Your task to perform on an android device: Open Google Image 0: 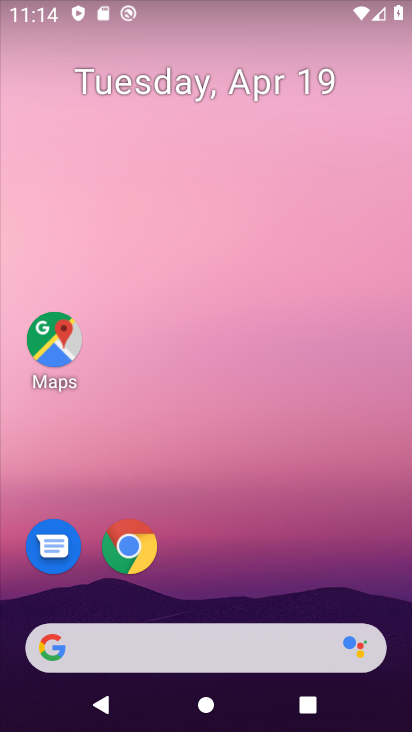
Step 0: drag from (311, 416) to (284, 5)
Your task to perform on an android device: Open Google Image 1: 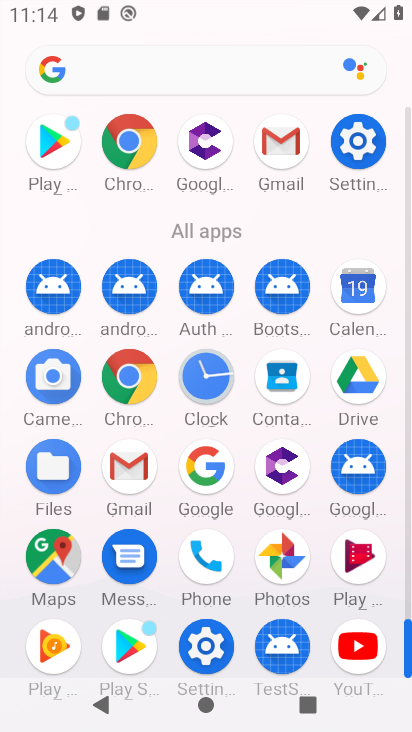
Step 1: drag from (0, 520) to (17, 259)
Your task to perform on an android device: Open Google Image 2: 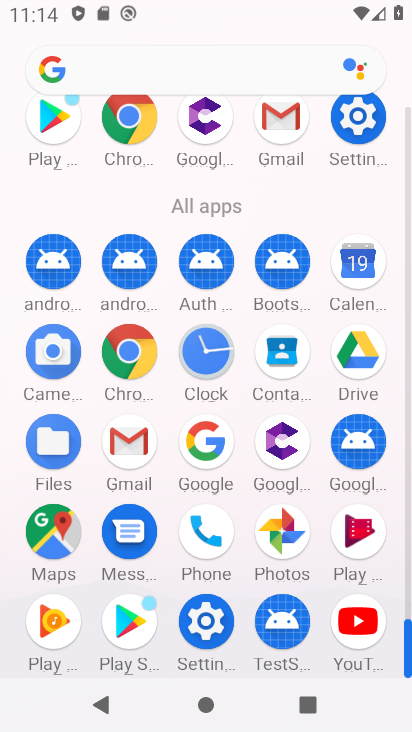
Step 2: click (133, 116)
Your task to perform on an android device: Open Google Image 3: 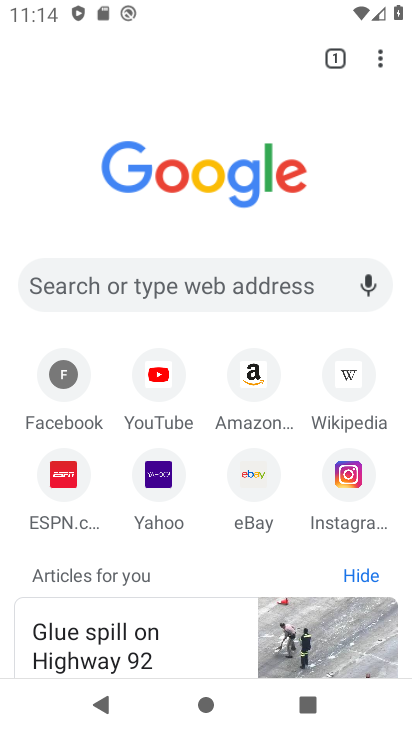
Step 3: click (201, 277)
Your task to perform on an android device: Open Google Image 4: 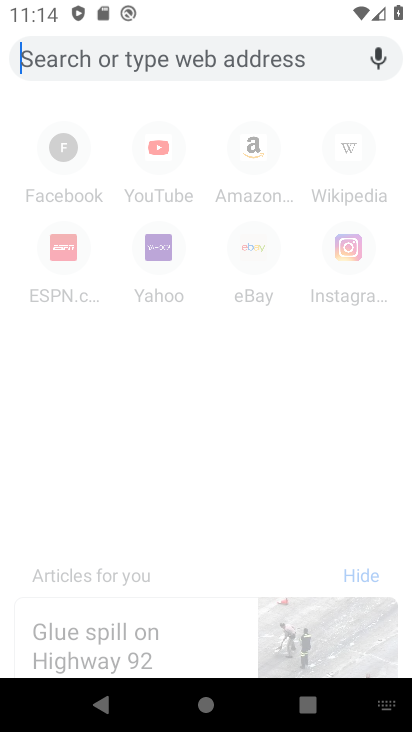
Step 4: type "google"
Your task to perform on an android device: Open Google Image 5: 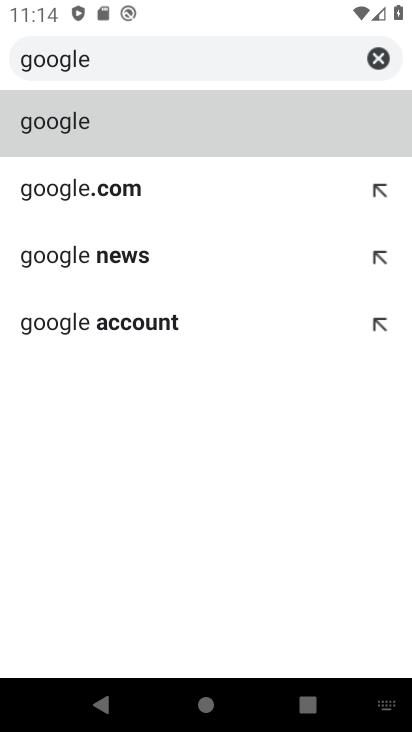
Step 5: click (149, 176)
Your task to perform on an android device: Open Google Image 6: 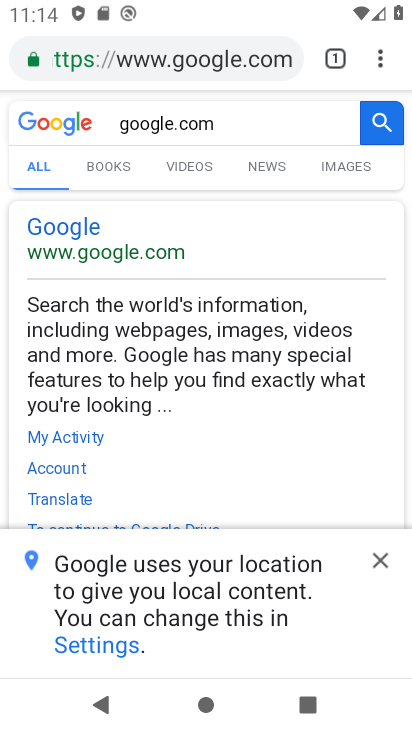
Step 6: click (87, 237)
Your task to perform on an android device: Open Google Image 7: 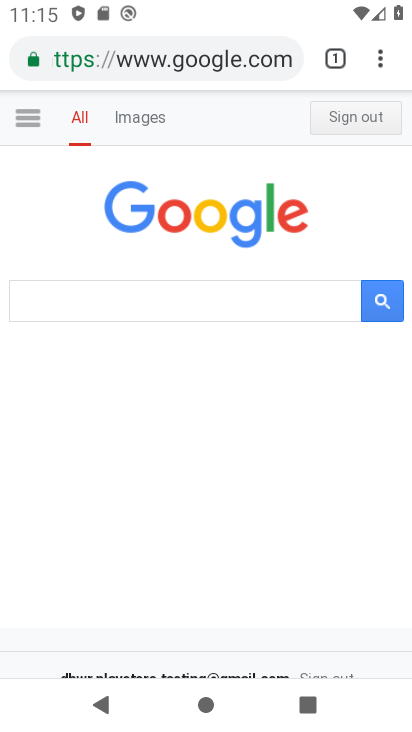
Step 7: task complete